Your task to perform on an android device: snooze an email in the gmail app Image 0: 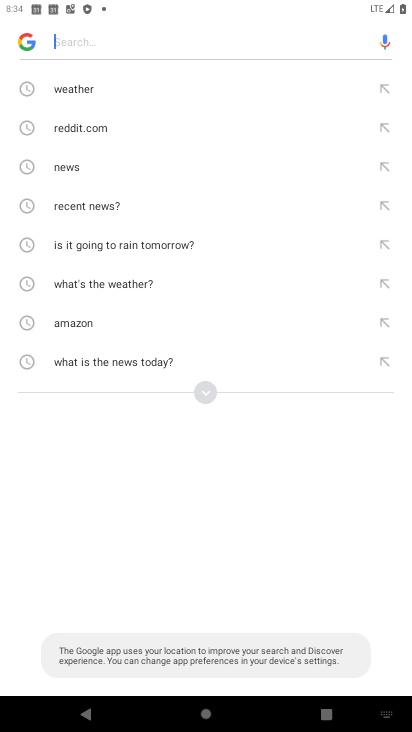
Step 0: press back button
Your task to perform on an android device: snooze an email in the gmail app Image 1: 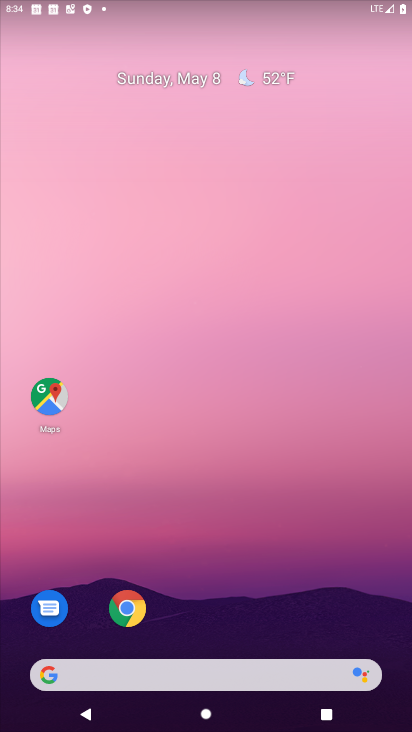
Step 1: drag from (318, 592) to (184, 3)
Your task to perform on an android device: snooze an email in the gmail app Image 2: 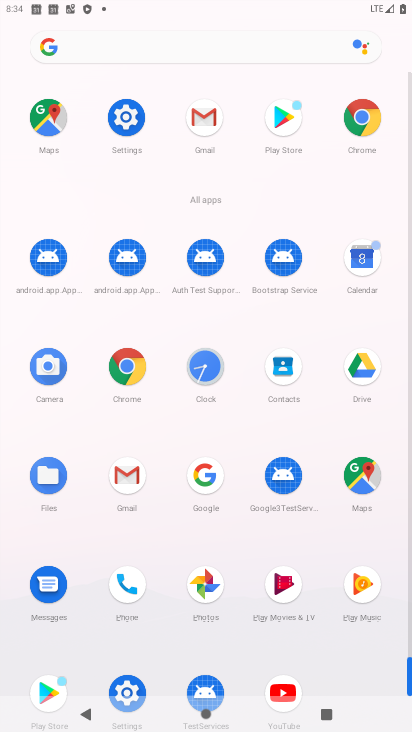
Step 2: click (202, 115)
Your task to perform on an android device: snooze an email in the gmail app Image 3: 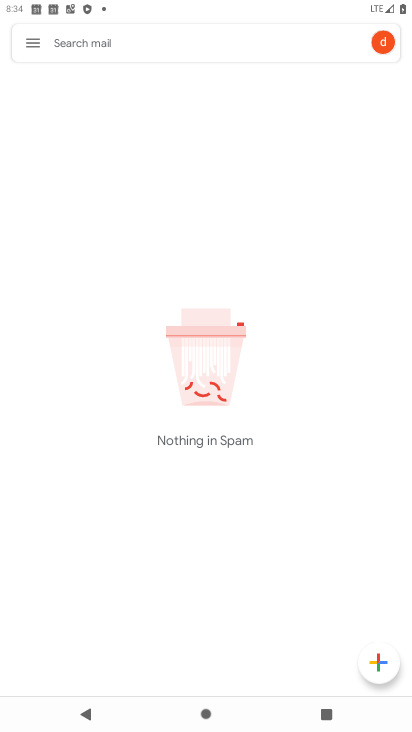
Step 3: click (35, 45)
Your task to perform on an android device: snooze an email in the gmail app Image 4: 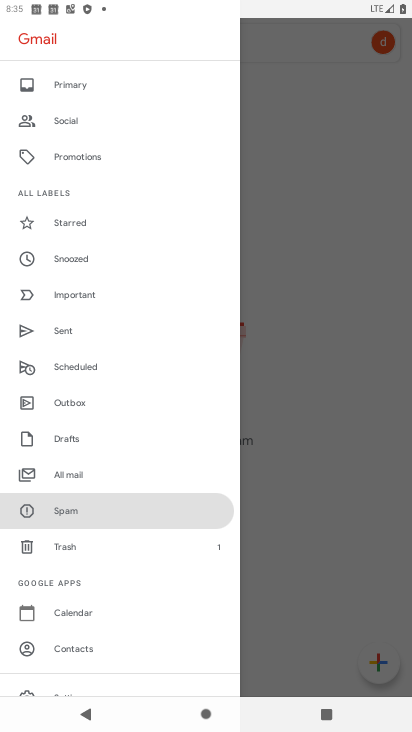
Step 4: drag from (141, 116) to (187, 486)
Your task to perform on an android device: snooze an email in the gmail app Image 5: 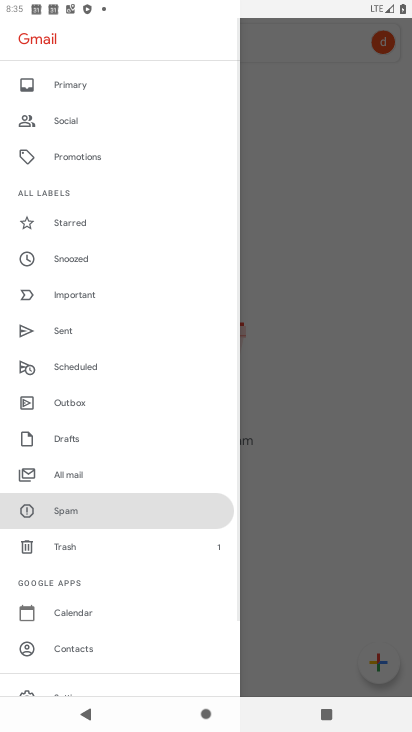
Step 5: click (79, 466)
Your task to perform on an android device: snooze an email in the gmail app Image 6: 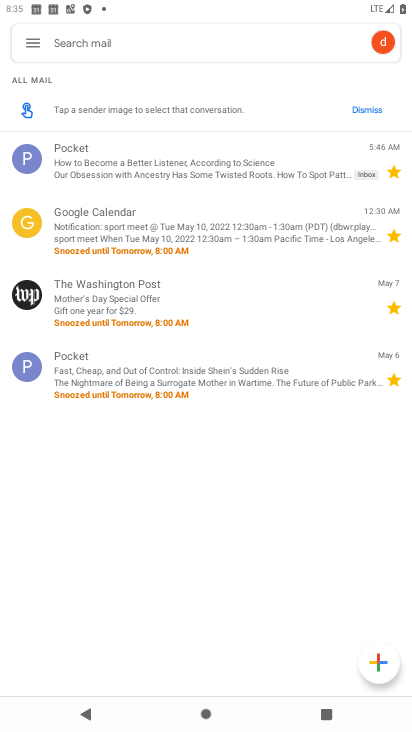
Step 6: click (161, 156)
Your task to perform on an android device: snooze an email in the gmail app Image 7: 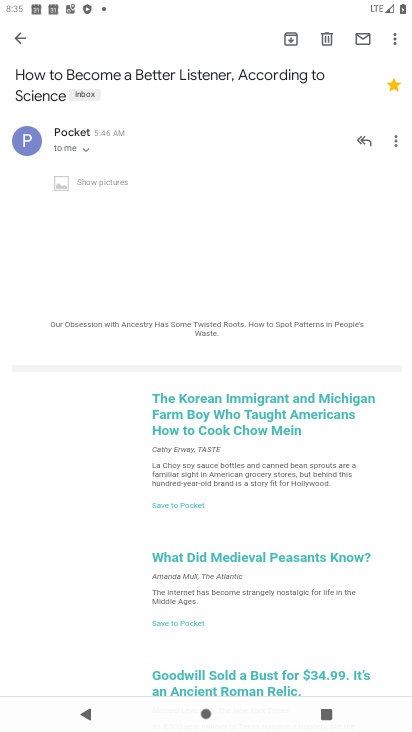
Step 7: drag from (395, 31) to (305, 38)
Your task to perform on an android device: snooze an email in the gmail app Image 8: 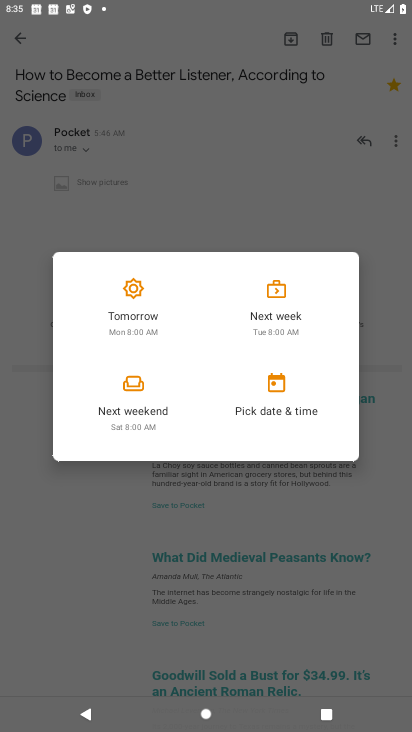
Step 8: click (140, 303)
Your task to perform on an android device: snooze an email in the gmail app Image 9: 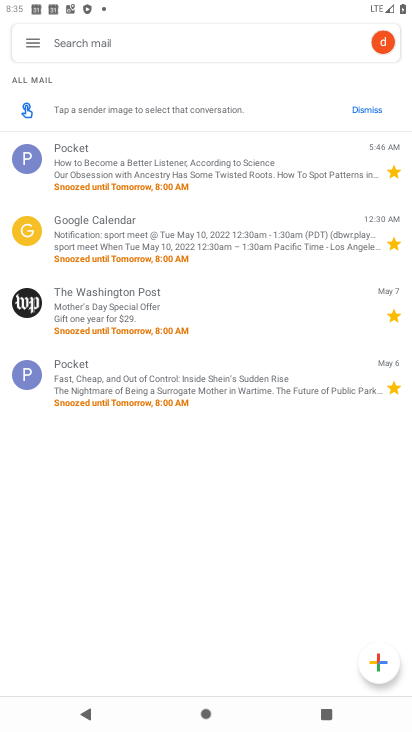
Step 9: task complete